Your task to perform on an android device: toggle javascript in the chrome app Image 0: 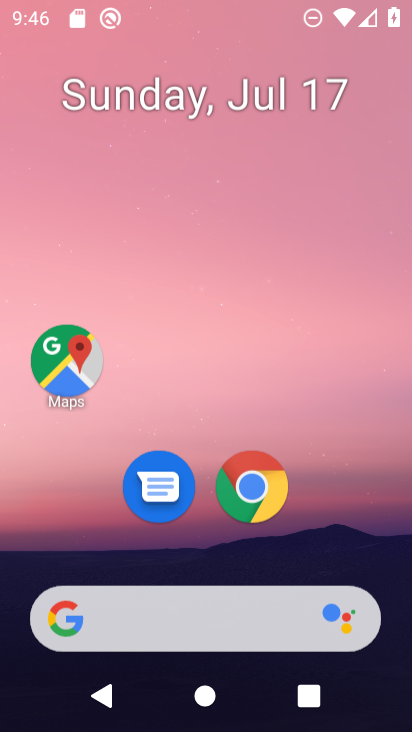
Step 0: press home button
Your task to perform on an android device: toggle javascript in the chrome app Image 1: 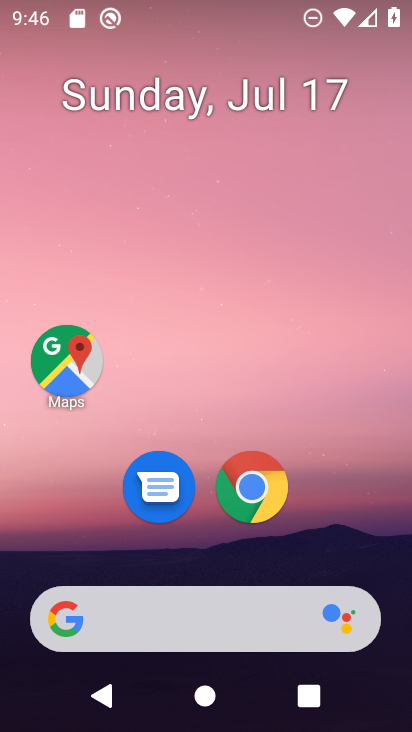
Step 1: drag from (310, 548) to (342, 53)
Your task to perform on an android device: toggle javascript in the chrome app Image 2: 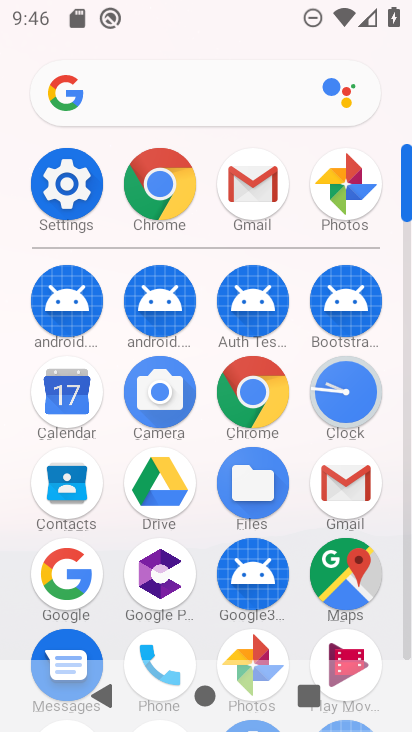
Step 2: click (176, 186)
Your task to perform on an android device: toggle javascript in the chrome app Image 3: 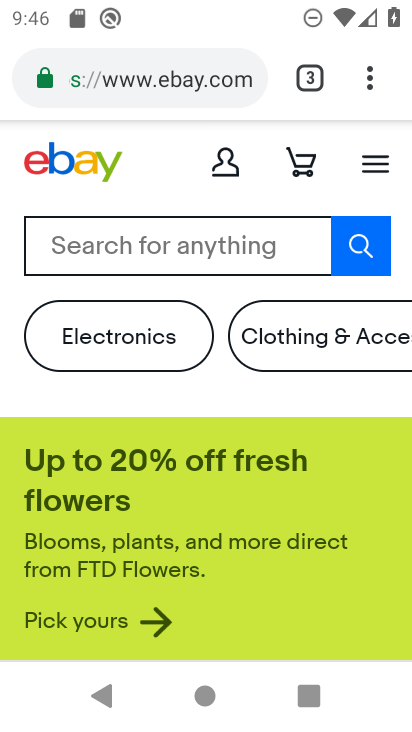
Step 3: drag from (370, 70) to (112, 548)
Your task to perform on an android device: toggle javascript in the chrome app Image 4: 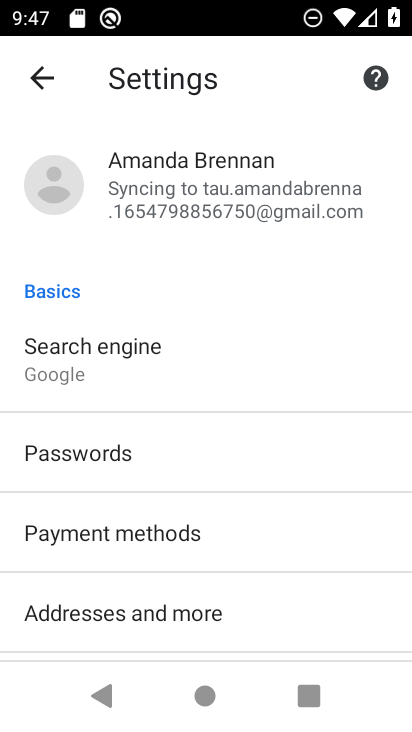
Step 4: drag from (243, 606) to (234, 308)
Your task to perform on an android device: toggle javascript in the chrome app Image 5: 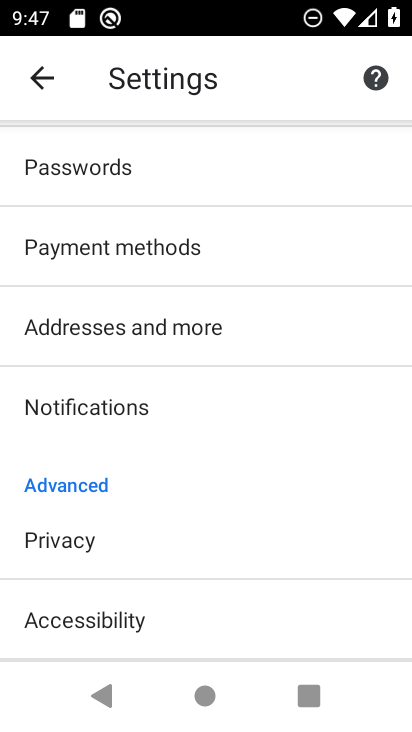
Step 5: drag from (271, 518) to (284, 139)
Your task to perform on an android device: toggle javascript in the chrome app Image 6: 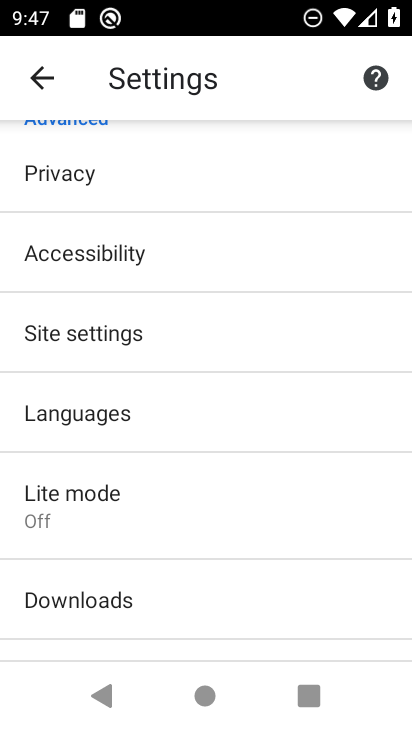
Step 6: click (56, 337)
Your task to perform on an android device: toggle javascript in the chrome app Image 7: 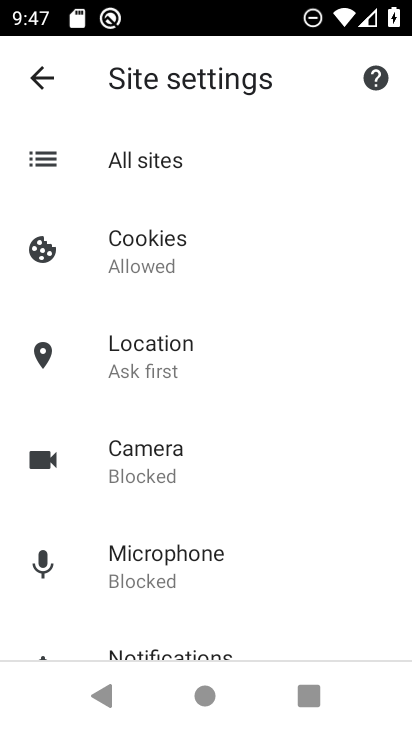
Step 7: drag from (370, 525) to (370, 146)
Your task to perform on an android device: toggle javascript in the chrome app Image 8: 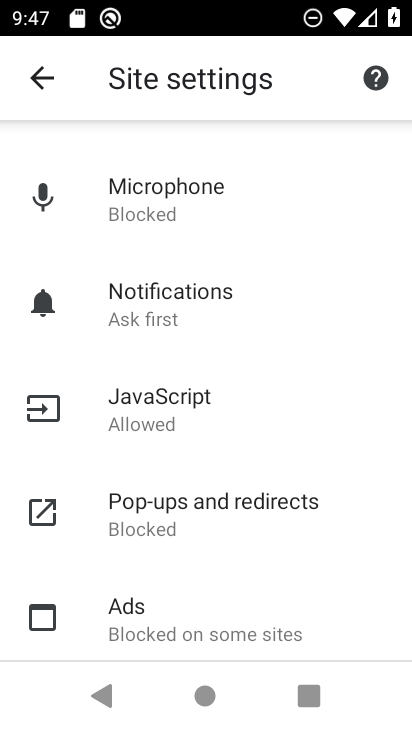
Step 8: click (153, 406)
Your task to perform on an android device: toggle javascript in the chrome app Image 9: 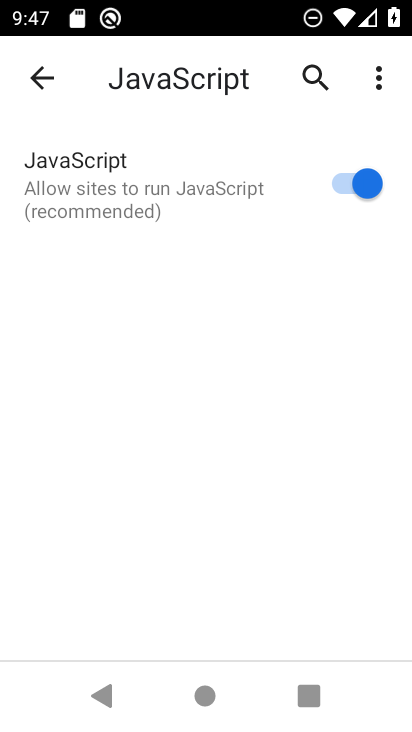
Step 9: click (377, 188)
Your task to perform on an android device: toggle javascript in the chrome app Image 10: 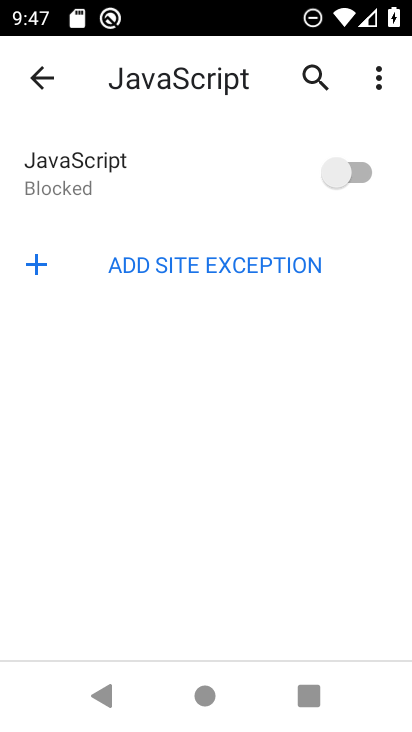
Step 10: task complete